Your task to perform on an android device: Search for vegetarian restaurants on Maps Image 0: 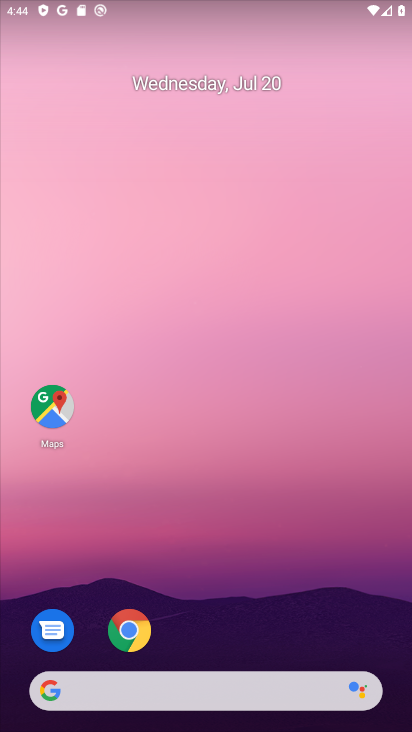
Step 0: click (52, 408)
Your task to perform on an android device: Search for vegetarian restaurants on Maps Image 1: 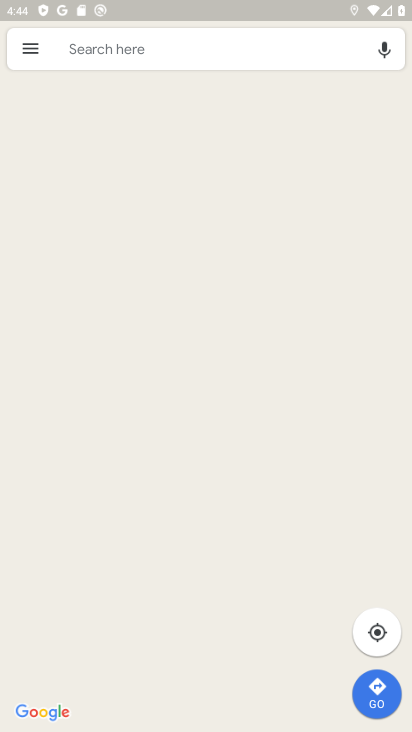
Step 1: click (238, 40)
Your task to perform on an android device: Search for vegetarian restaurants on Maps Image 2: 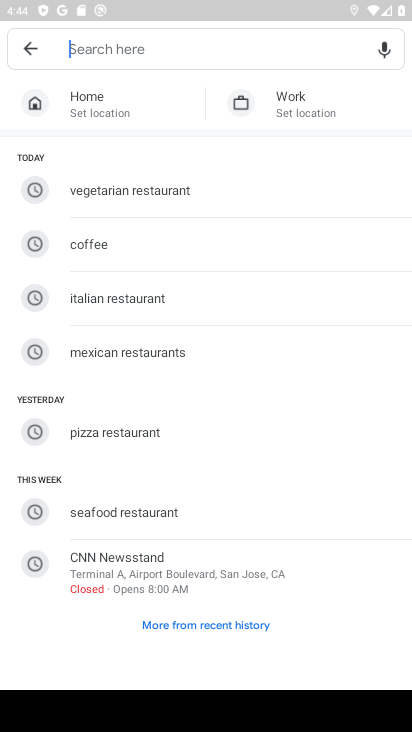
Step 2: type "vegetarian restaurants"
Your task to perform on an android device: Search for vegetarian restaurants on Maps Image 3: 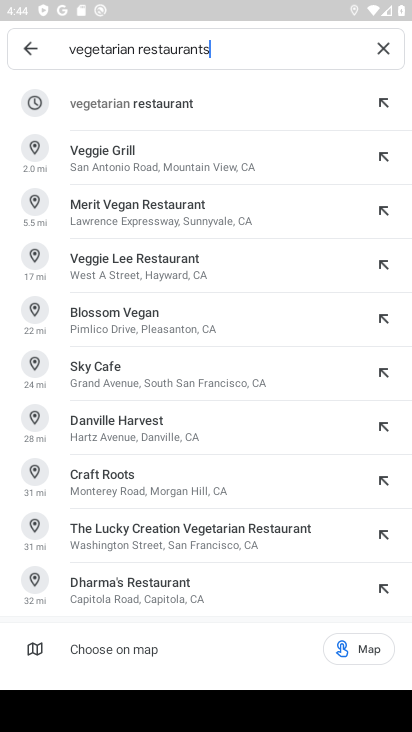
Step 3: click (147, 105)
Your task to perform on an android device: Search for vegetarian restaurants on Maps Image 4: 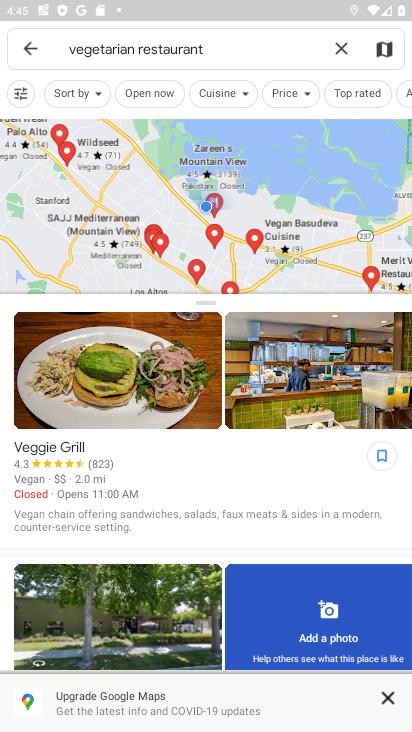
Step 4: task complete